Your task to perform on an android device: toggle notification dots Image 0: 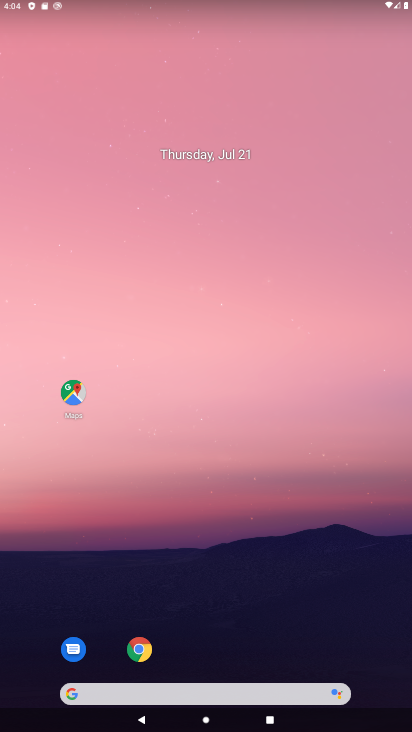
Step 0: drag from (174, 590) to (211, 88)
Your task to perform on an android device: toggle notification dots Image 1: 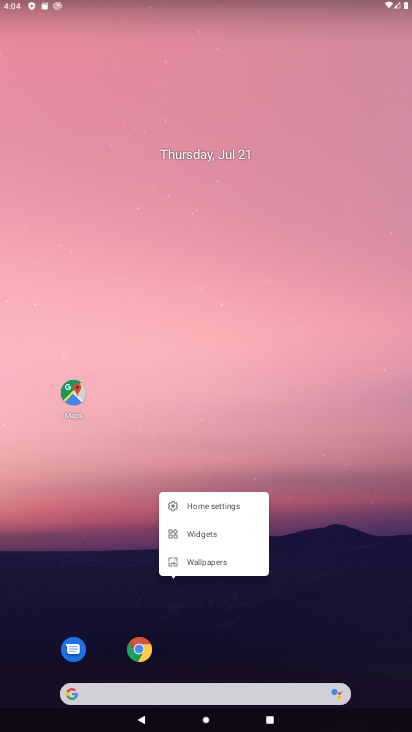
Step 1: drag from (204, 586) to (168, 0)
Your task to perform on an android device: toggle notification dots Image 2: 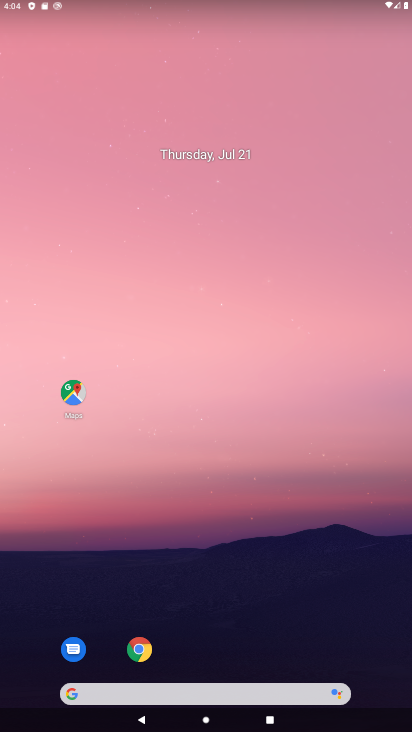
Step 2: drag from (201, 650) to (224, 224)
Your task to perform on an android device: toggle notification dots Image 3: 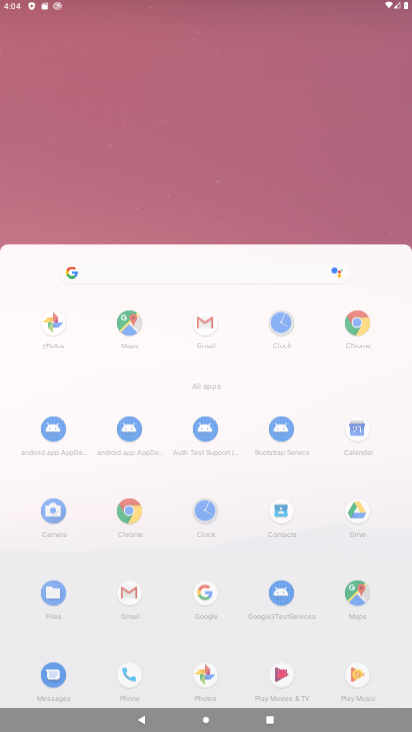
Step 3: drag from (193, 285) to (303, 69)
Your task to perform on an android device: toggle notification dots Image 4: 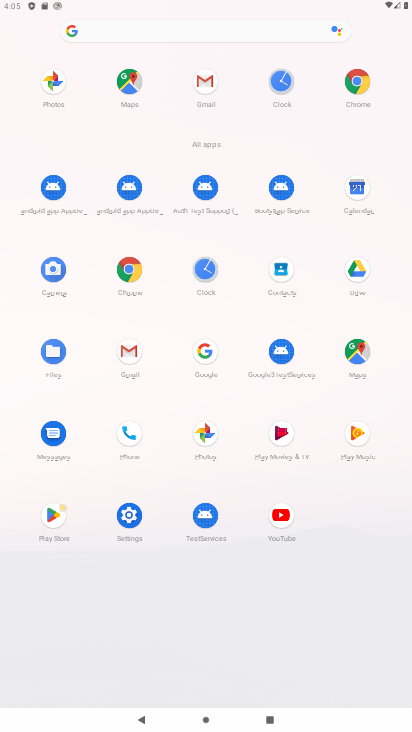
Step 4: click (128, 519)
Your task to perform on an android device: toggle notification dots Image 5: 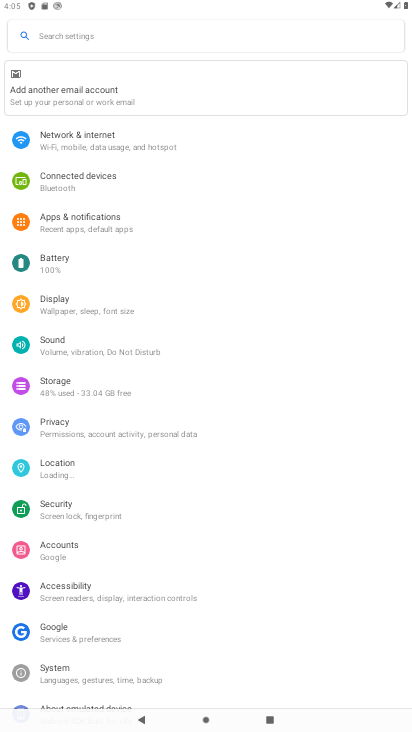
Step 5: click (128, 519)
Your task to perform on an android device: toggle notification dots Image 6: 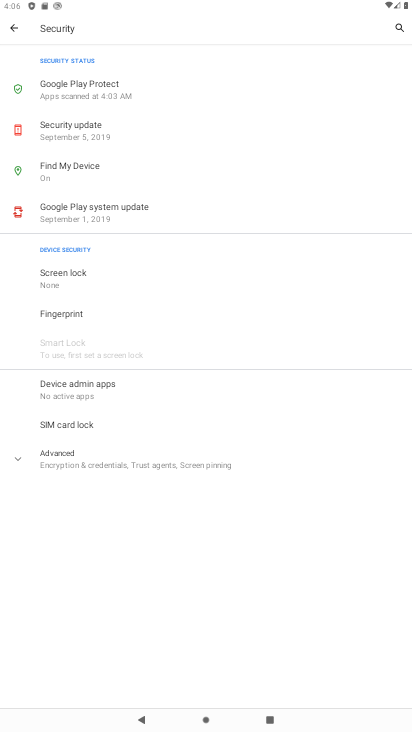
Step 6: click (130, 519)
Your task to perform on an android device: toggle notification dots Image 7: 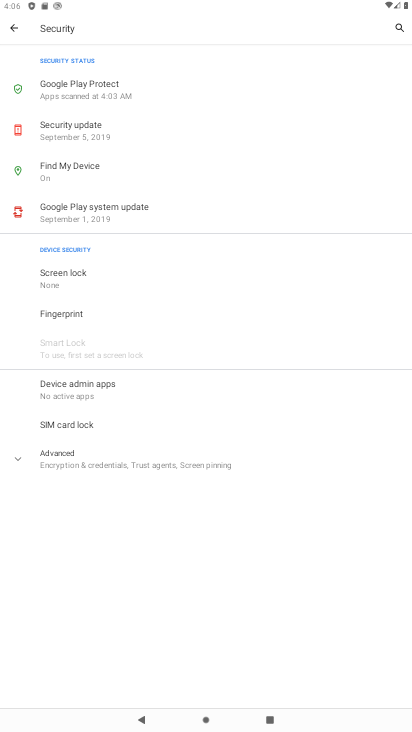
Step 7: click (17, 33)
Your task to perform on an android device: toggle notification dots Image 8: 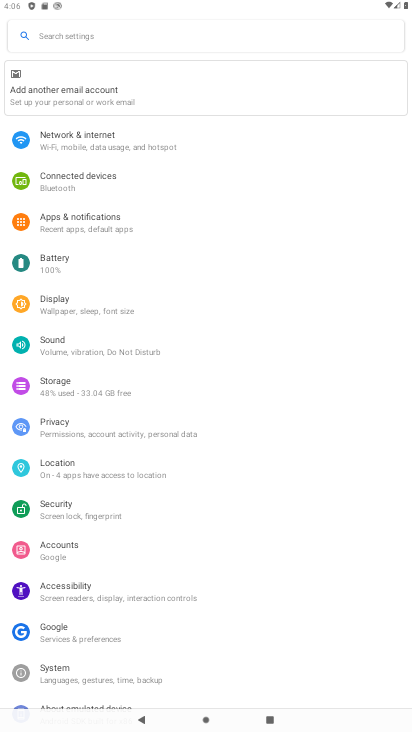
Step 8: click (67, 218)
Your task to perform on an android device: toggle notification dots Image 9: 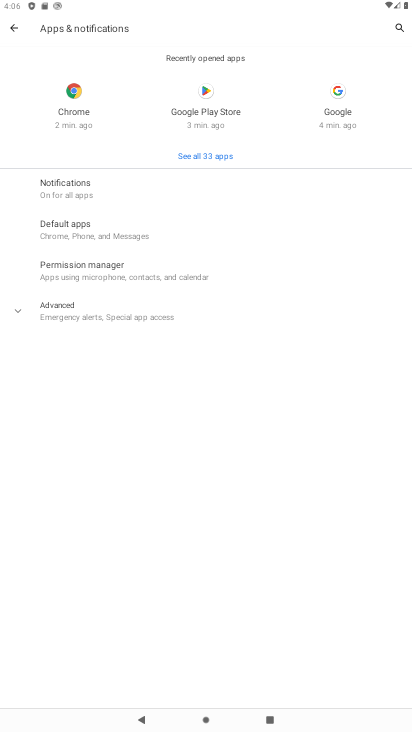
Step 9: click (53, 190)
Your task to perform on an android device: toggle notification dots Image 10: 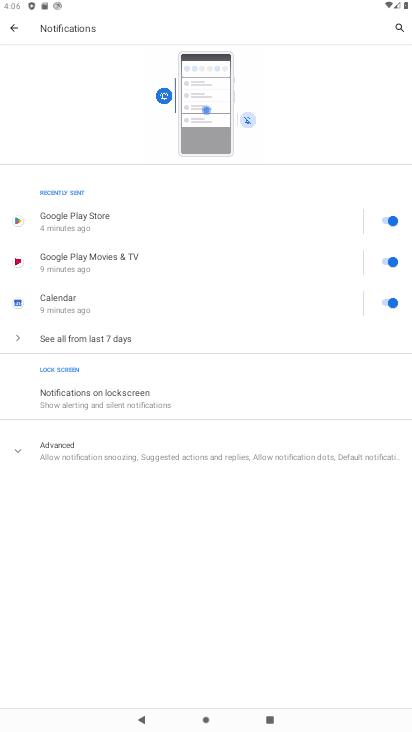
Step 10: click (57, 460)
Your task to perform on an android device: toggle notification dots Image 11: 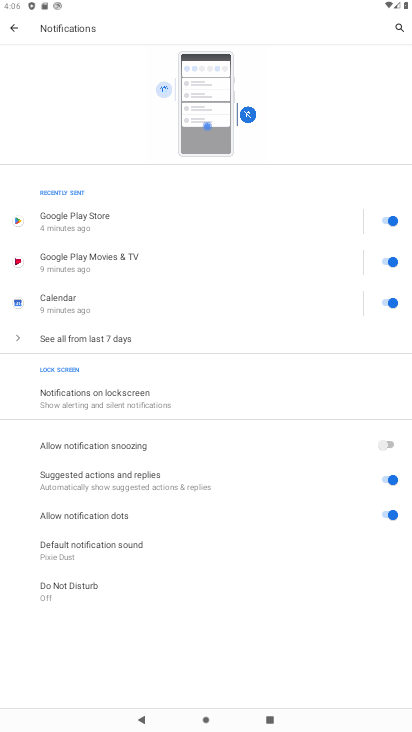
Step 11: click (391, 513)
Your task to perform on an android device: toggle notification dots Image 12: 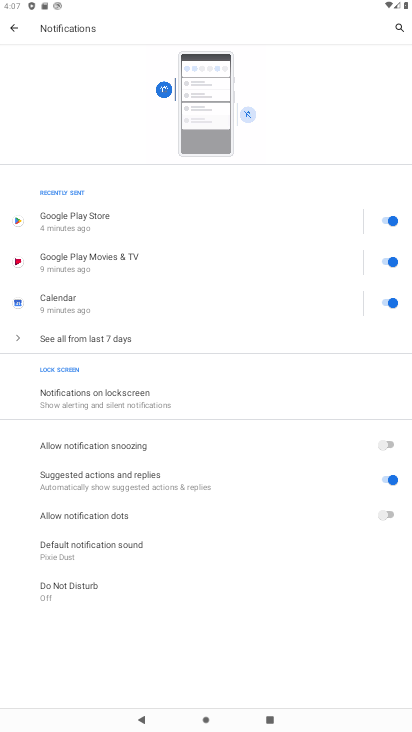
Step 12: task complete